Your task to perform on an android device: Open maps Image 0: 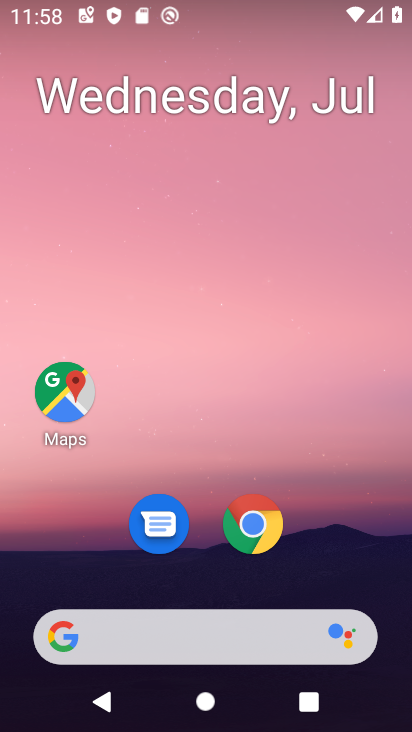
Step 0: click (66, 407)
Your task to perform on an android device: Open maps Image 1: 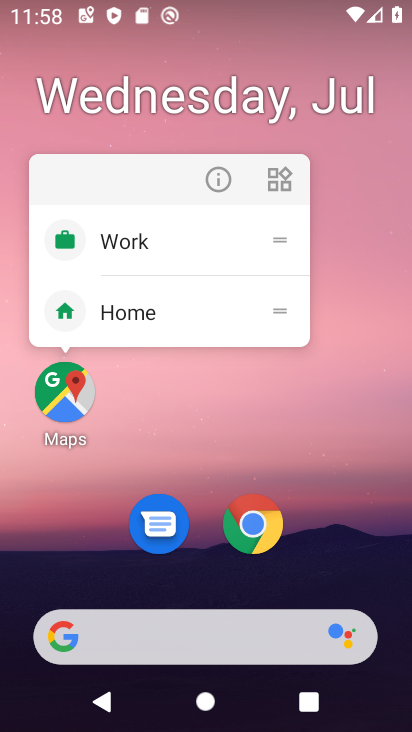
Step 1: click (65, 398)
Your task to perform on an android device: Open maps Image 2: 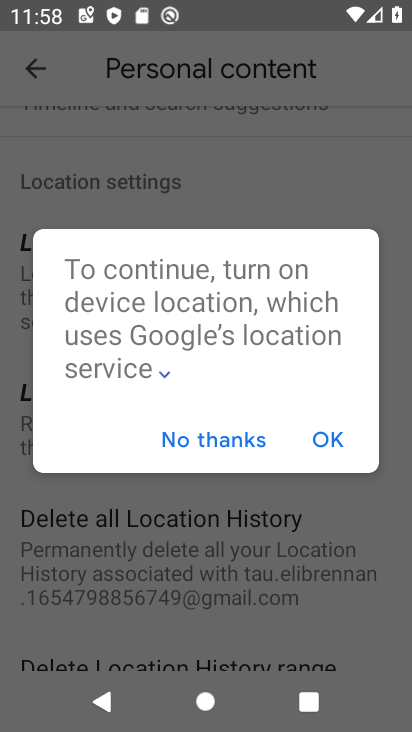
Step 2: click (323, 443)
Your task to perform on an android device: Open maps Image 3: 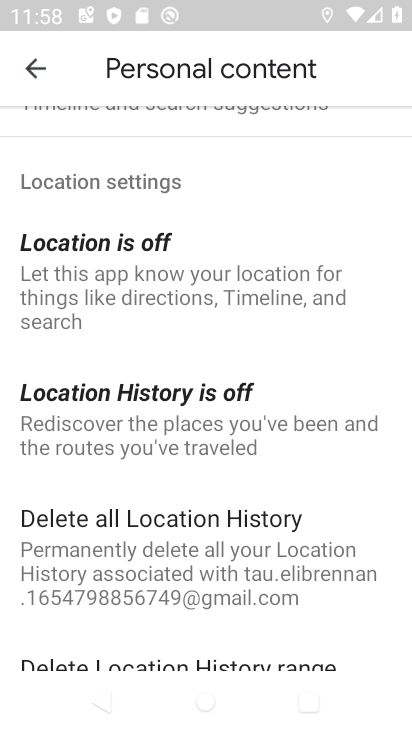
Step 3: click (44, 79)
Your task to perform on an android device: Open maps Image 4: 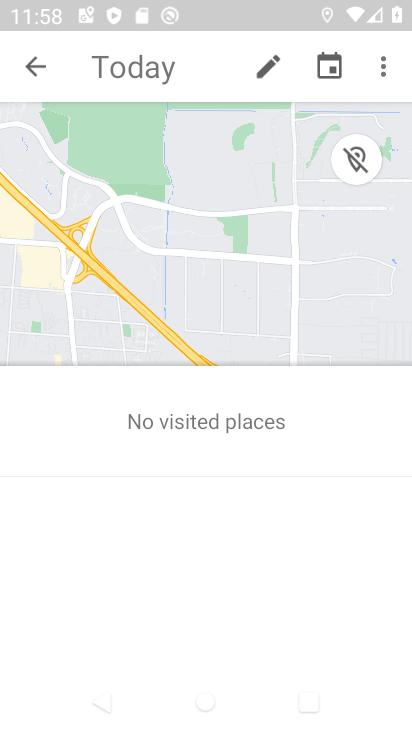
Step 4: click (32, 71)
Your task to perform on an android device: Open maps Image 5: 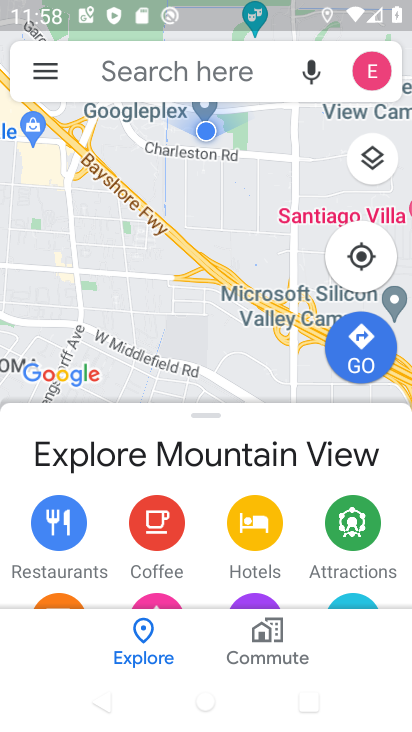
Step 5: task complete